Your task to perform on an android device: check google app version Image 0: 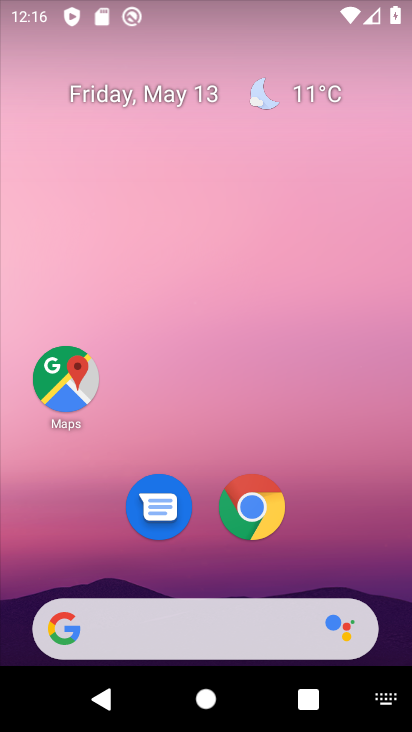
Step 0: drag from (244, 578) to (119, 13)
Your task to perform on an android device: check google app version Image 1: 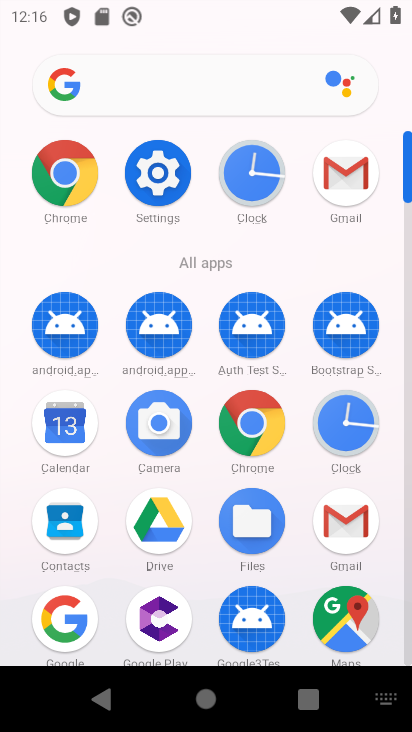
Step 1: click (83, 621)
Your task to perform on an android device: check google app version Image 2: 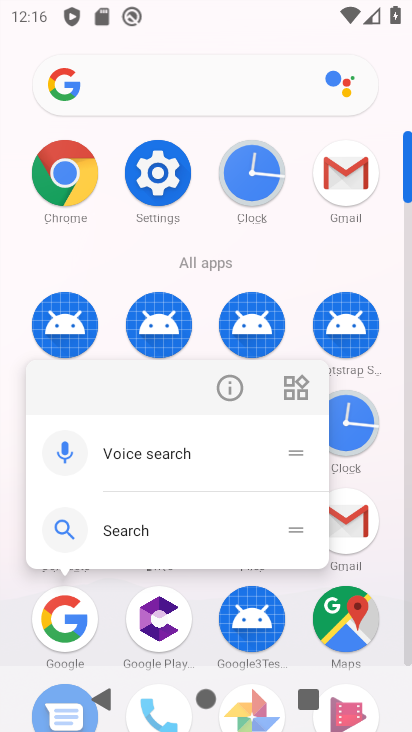
Step 2: click (236, 384)
Your task to perform on an android device: check google app version Image 3: 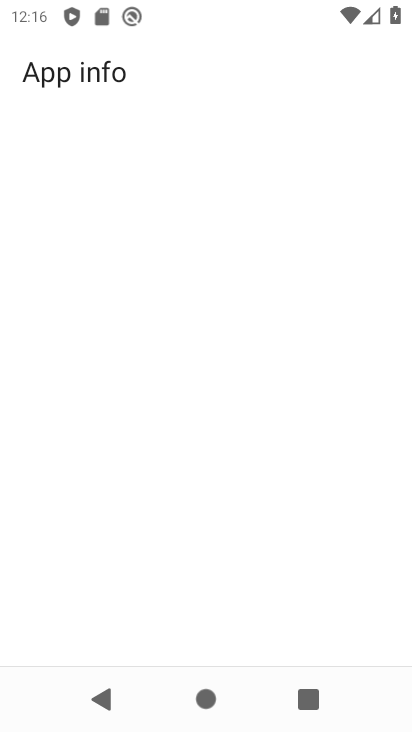
Step 3: drag from (230, 468) to (233, 38)
Your task to perform on an android device: check google app version Image 4: 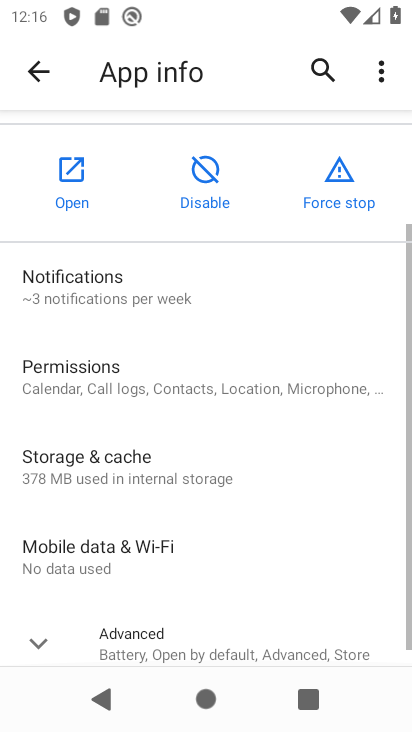
Step 4: click (186, 639)
Your task to perform on an android device: check google app version Image 5: 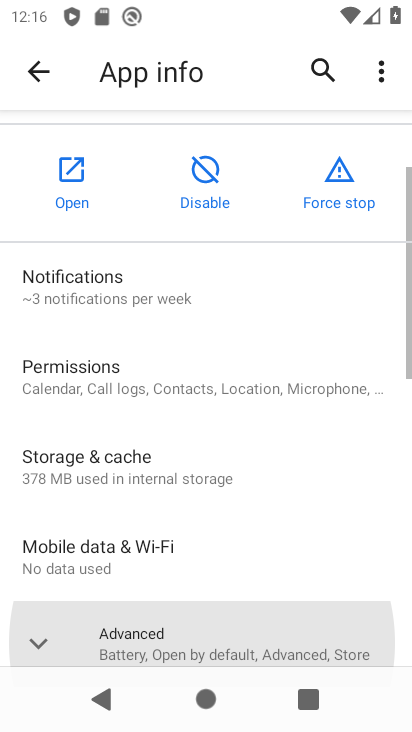
Step 5: task complete